Your task to perform on an android device: Open location settings Image 0: 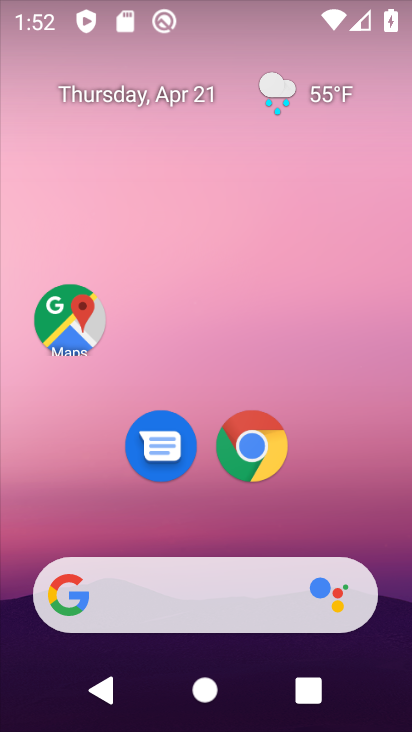
Step 0: drag from (199, 725) to (156, 169)
Your task to perform on an android device: Open location settings Image 1: 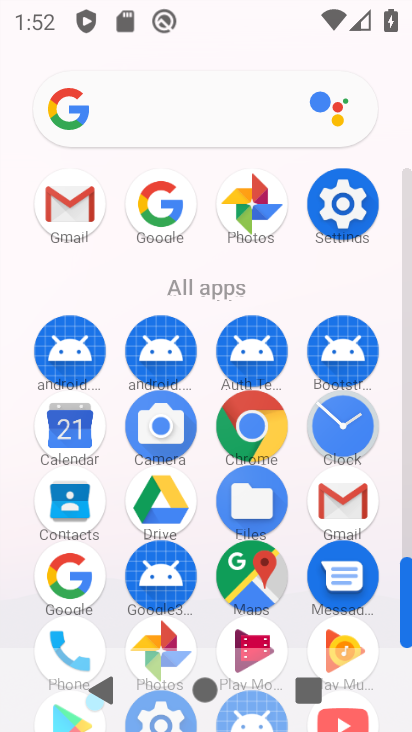
Step 1: click (346, 205)
Your task to perform on an android device: Open location settings Image 2: 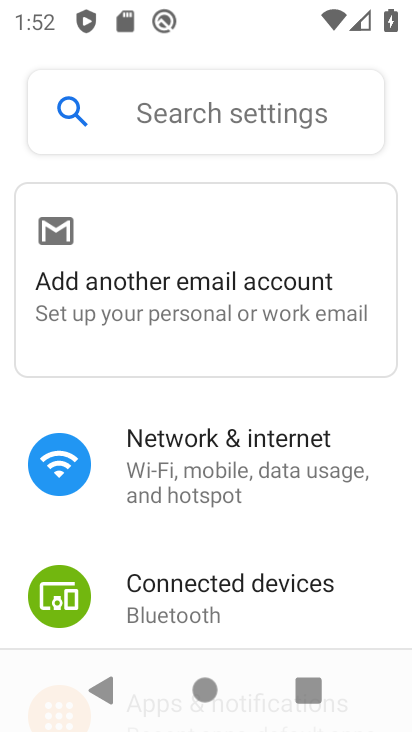
Step 2: drag from (238, 628) to (188, 286)
Your task to perform on an android device: Open location settings Image 3: 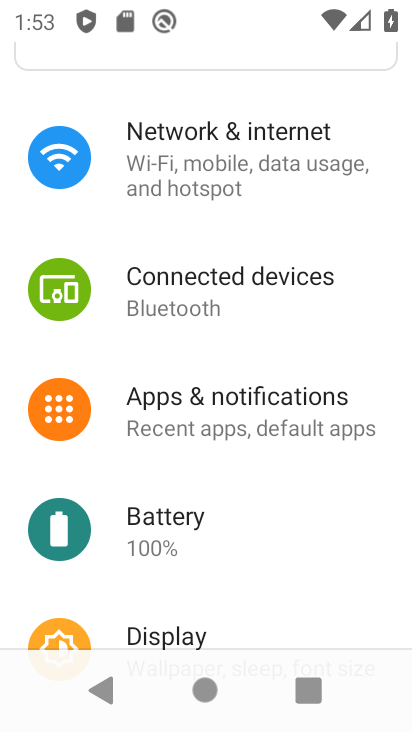
Step 3: drag from (227, 608) to (241, 242)
Your task to perform on an android device: Open location settings Image 4: 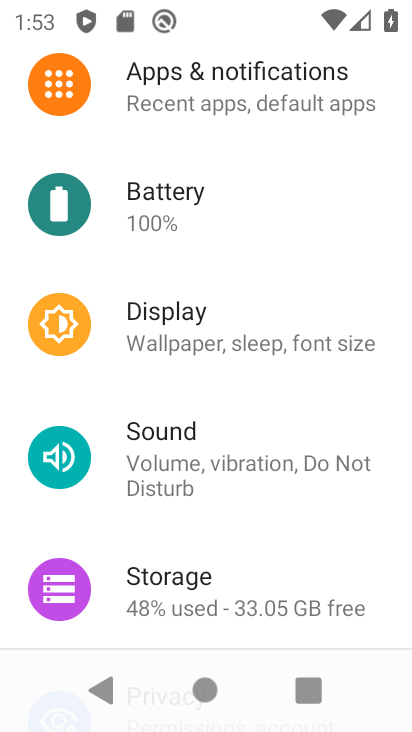
Step 4: drag from (249, 587) to (230, 246)
Your task to perform on an android device: Open location settings Image 5: 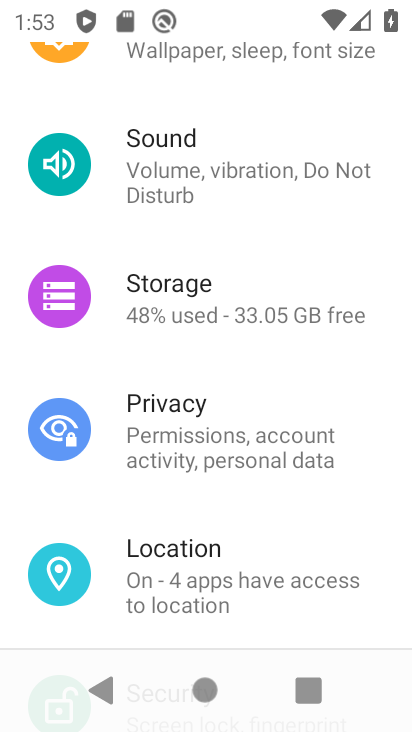
Step 5: click (178, 573)
Your task to perform on an android device: Open location settings Image 6: 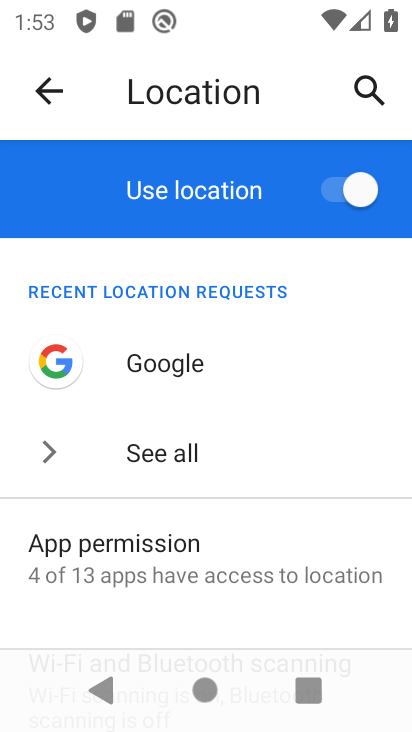
Step 6: task complete